Your task to perform on an android device: move a message to another label in the gmail app Image 0: 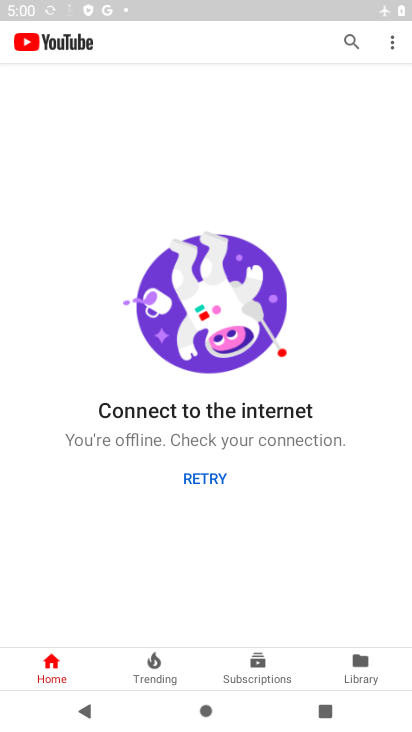
Step 0: press home button
Your task to perform on an android device: move a message to another label in the gmail app Image 1: 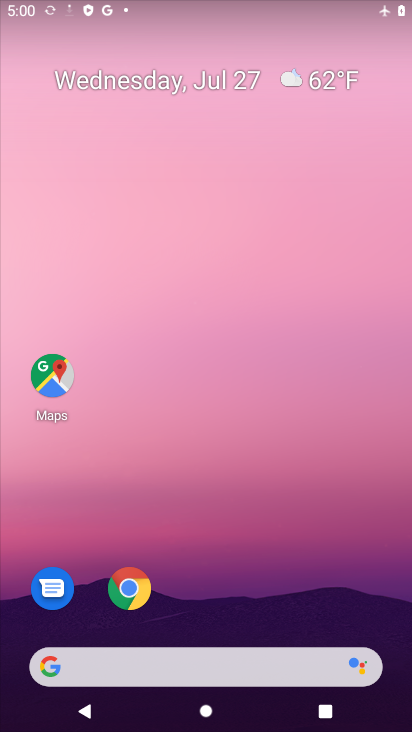
Step 1: drag from (194, 532) to (224, 17)
Your task to perform on an android device: move a message to another label in the gmail app Image 2: 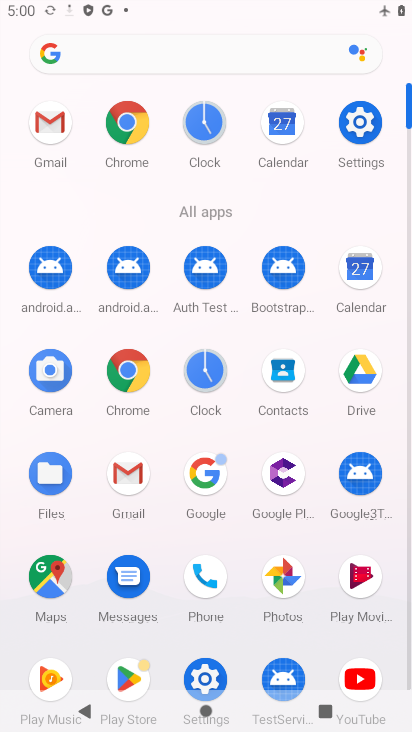
Step 2: click (48, 132)
Your task to perform on an android device: move a message to another label in the gmail app Image 3: 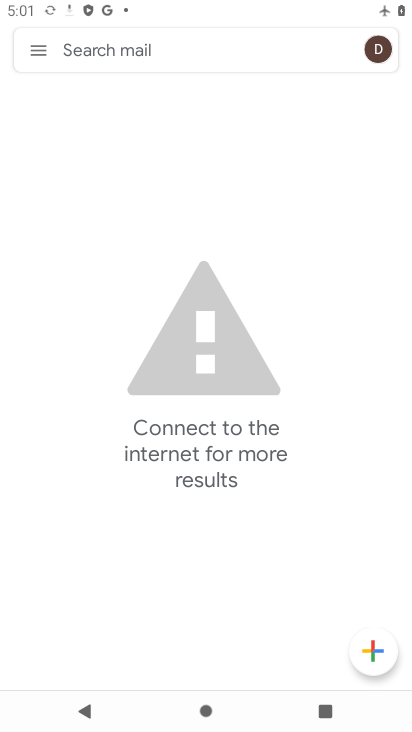
Step 3: click (40, 53)
Your task to perform on an android device: move a message to another label in the gmail app Image 4: 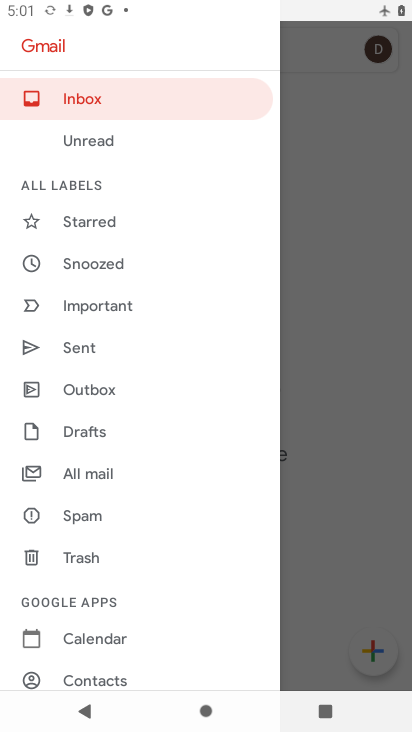
Step 4: click (79, 466)
Your task to perform on an android device: move a message to another label in the gmail app Image 5: 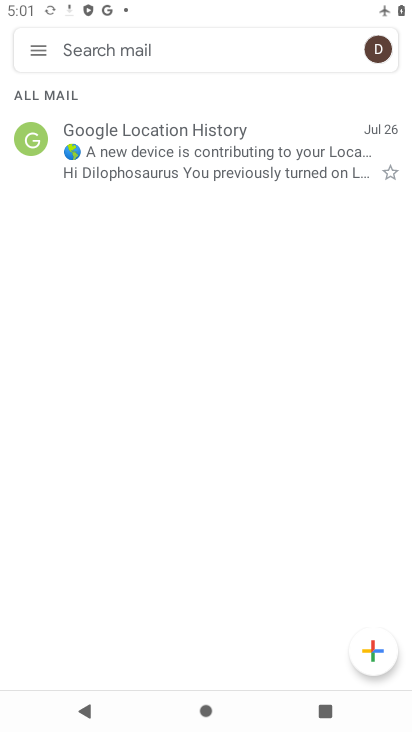
Step 5: click (210, 167)
Your task to perform on an android device: move a message to another label in the gmail app Image 6: 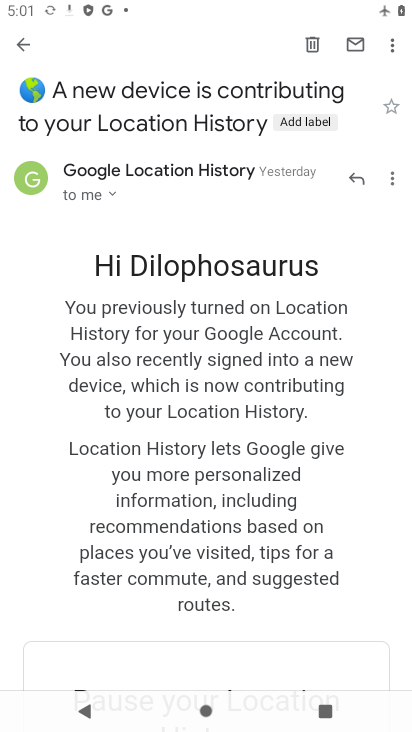
Step 6: click (304, 122)
Your task to perform on an android device: move a message to another label in the gmail app Image 7: 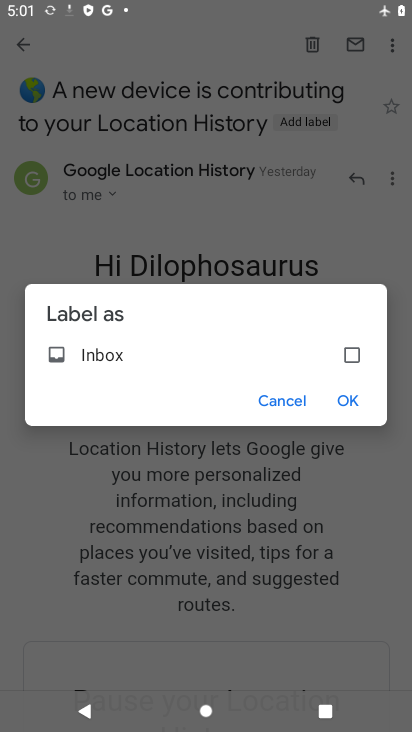
Step 7: click (358, 358)
Your task to perform on an android device: move a message to another label in the gmail app Image 8: 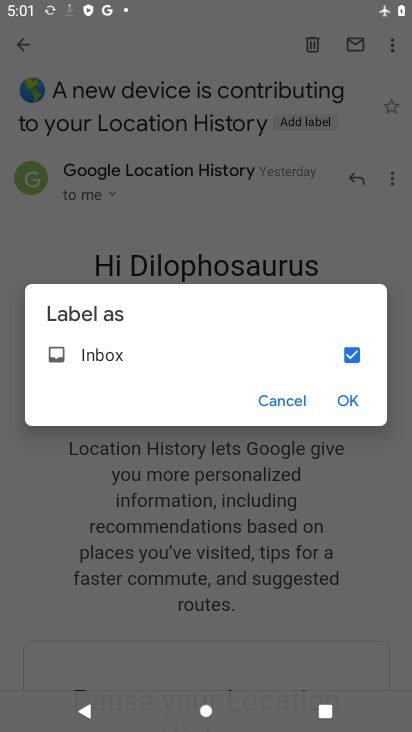
Step 8: click (348, 402)
Your task to perform on an android device: move a message to another label in the gmail app Image 9: 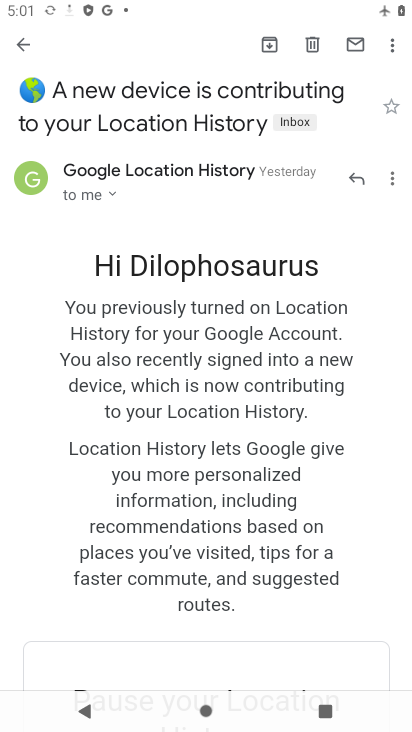
Step 9: task complete